Your task to perform on an android device: toggle sleep mode Image 0: 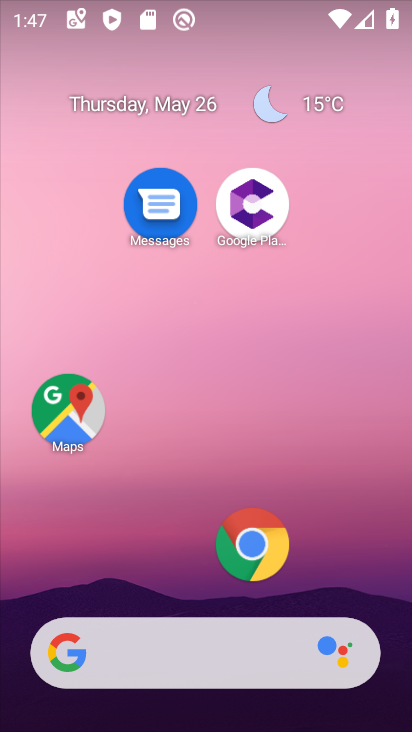
Step 0: drag from (267, 20) to (324, 514)
Your task to perform on an android device: toggle sleep mode Image 1: 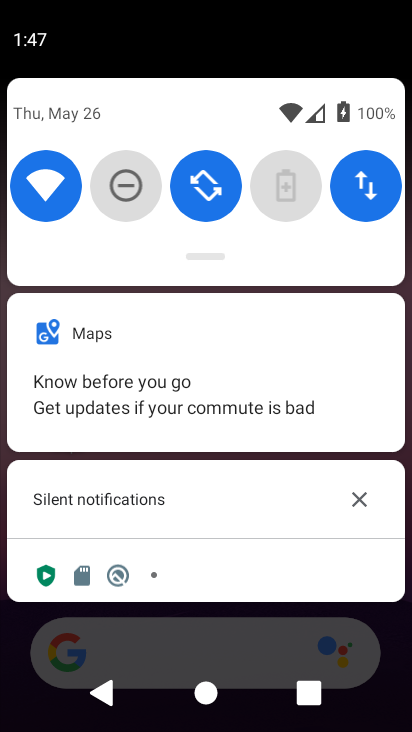
Step 1: drag from (169, 84) to (228, 499)
Your task to perform on an android device: toggle sleep mode Image 2: 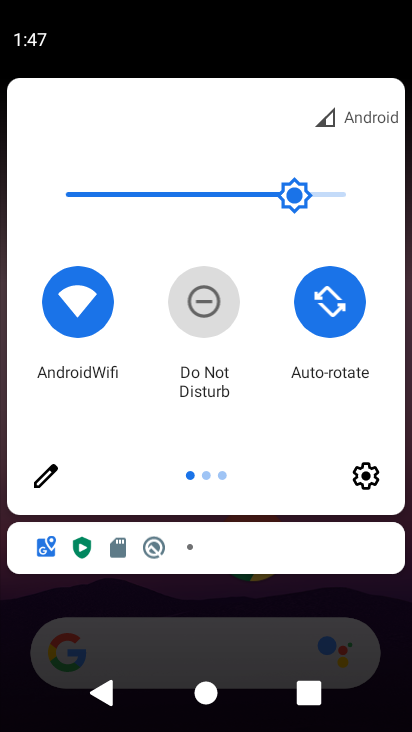
Step 2: drag from (339, 413) to (24, 320)
Your task to perform on an android device: toggle sleep mode Image 3: 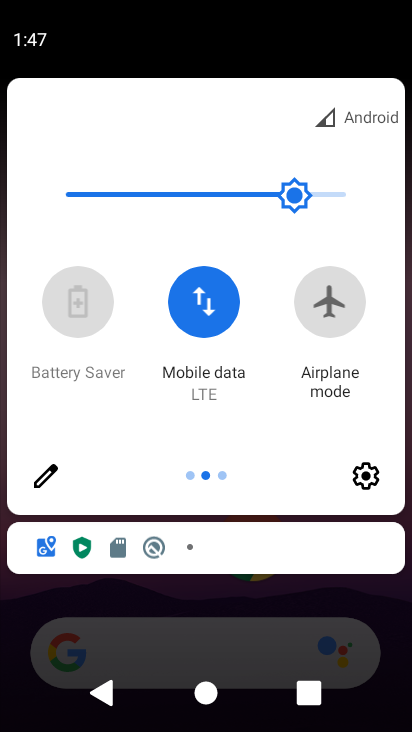
Step 3: click (377, 482)
Your task to perform on an android device: toggle sleep mode Image 4: 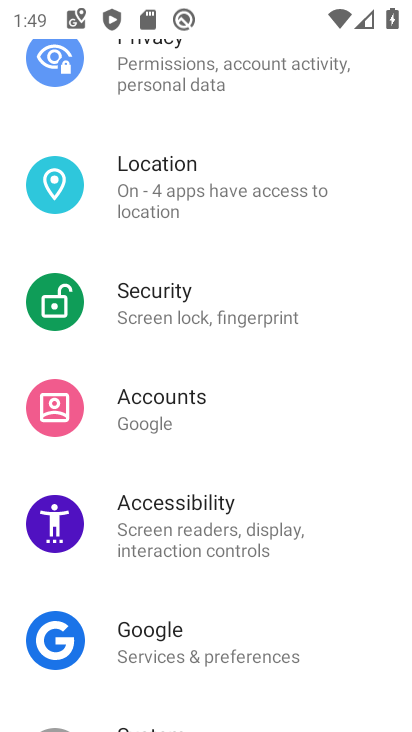
Step 4: task complete